Your task to perform on an android device: check android version Image 0: 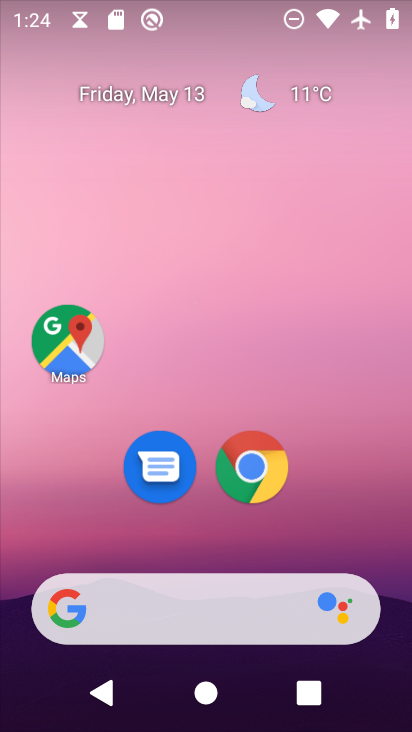
Step 0: drag from (355, 488) to (274, 90)
Your task to perform on an android device: check android version Image 1: 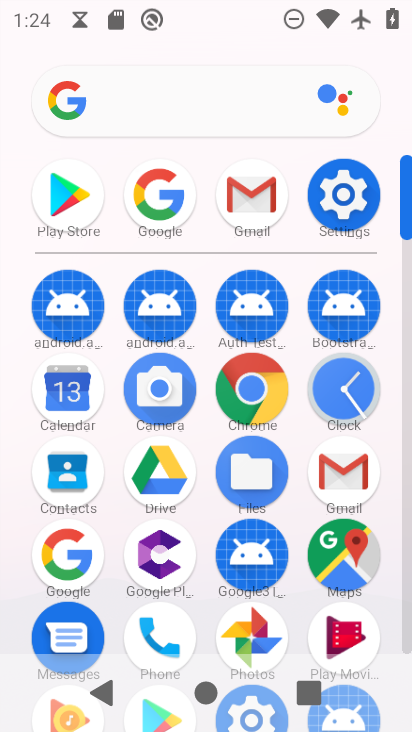
Step 1: click (341, 197)
Your task to perform on an android device: check android version Image 2: 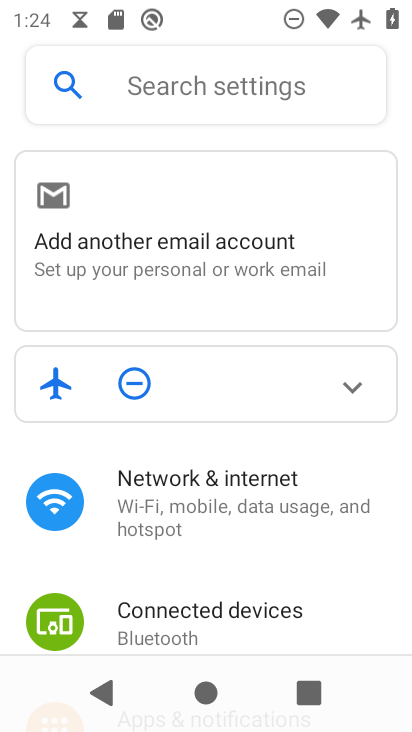
Step 2: drag from (288, 581) to (245, 27)
Your task to perform on an android device: check android version Image 3: 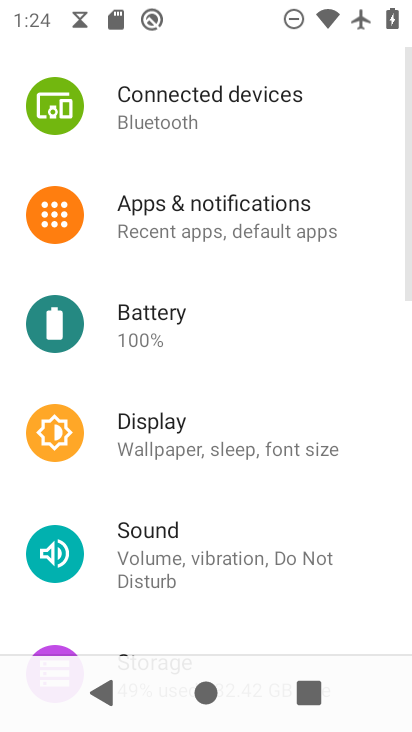
Step 3: drag from (263, 607) to (223, 138)
Your task to perform on an android device: check android version Image 4: 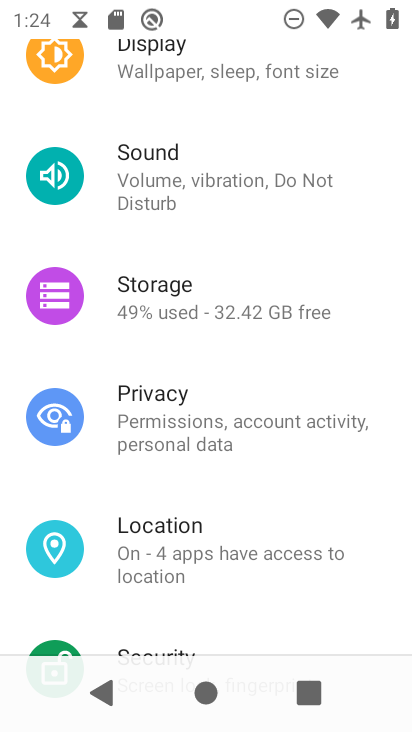
Step 4: drag from (225, 600) to (248, 172)
Your task to perform on an android device: check android version Image 5: 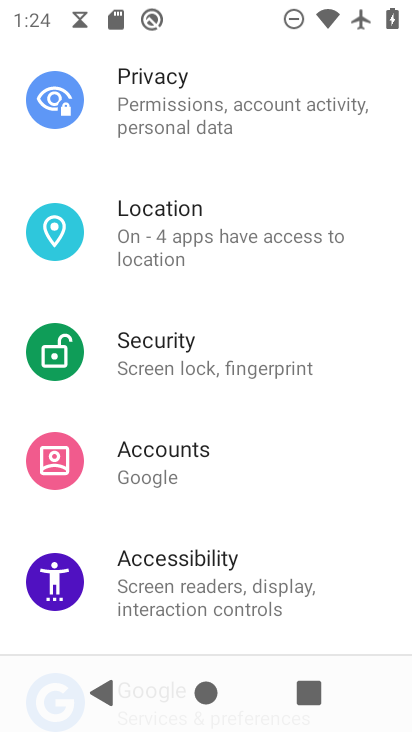
Step 5: drag from (237, 588) to (238, 161)
Your task to perform on an android device: check android version Image 6: 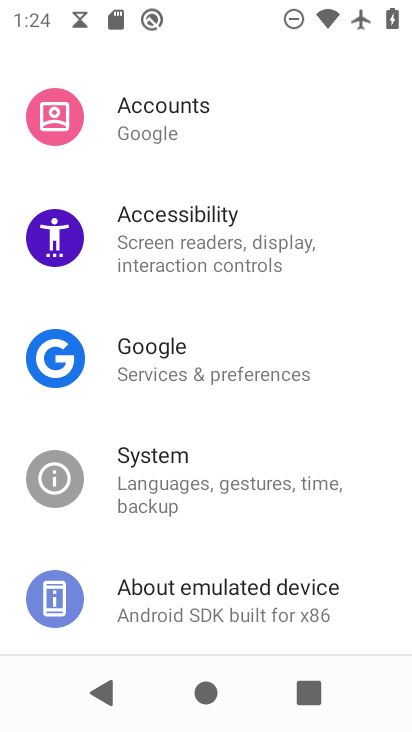
Step 6: drag from (247, 432) to (217, 201)
Your task to perform on an android device: check android version Image 7: 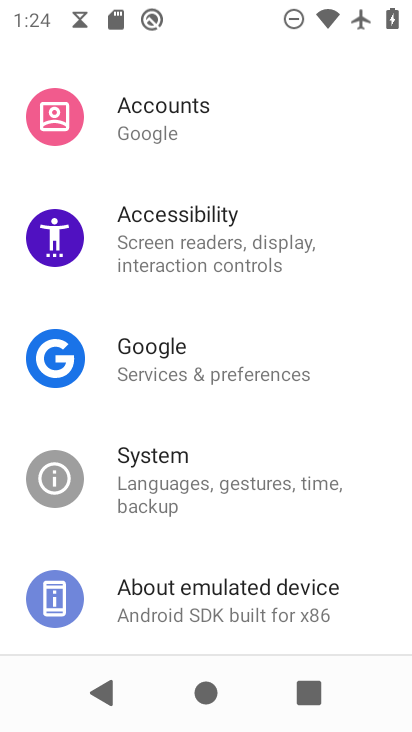
Step 7: click (224, 590)
Your task to perform on an android device: check android version Image 8: 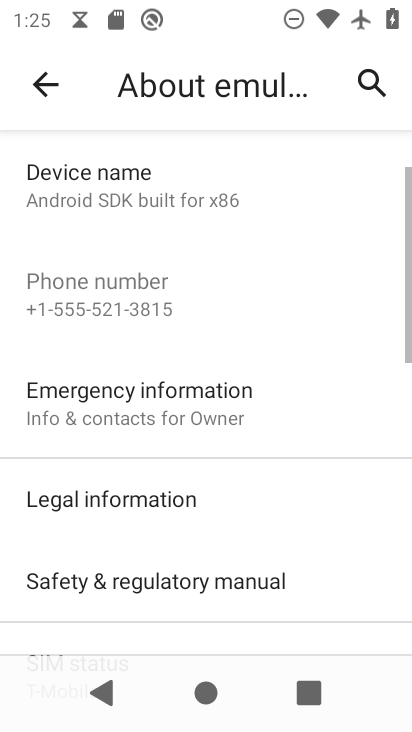
Step 8: drag from (214, 405) to (200, 180)
Your task to perform on an android device: check android version Image 9: 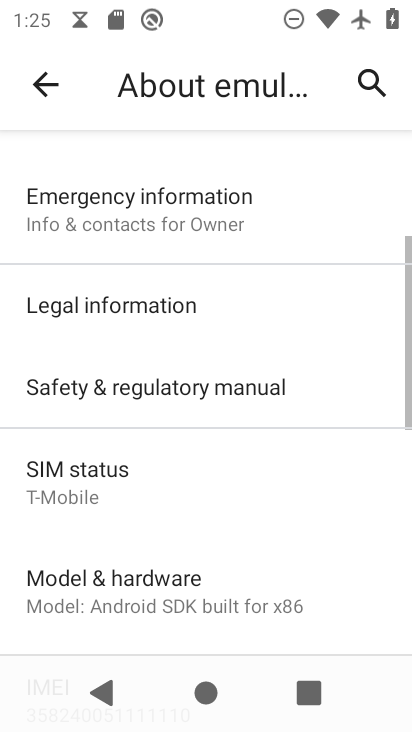
Step 9: drag from (190, 567) to (180, 259)
Your task to perform on an android device: check android version Image 10: 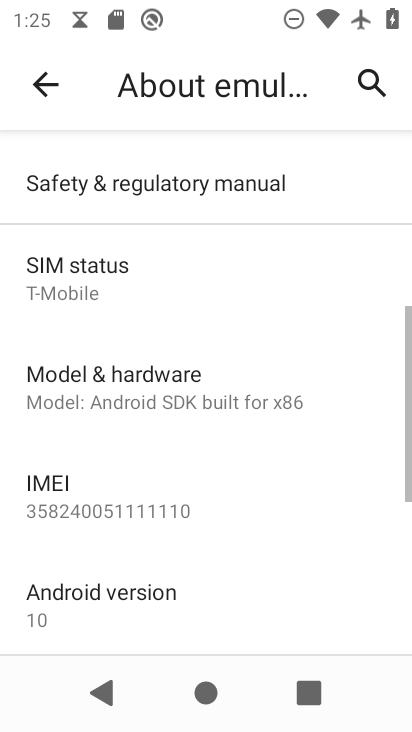
Step 10: click (148, 596)
Your task to perform on an android device: check android version Image 11: 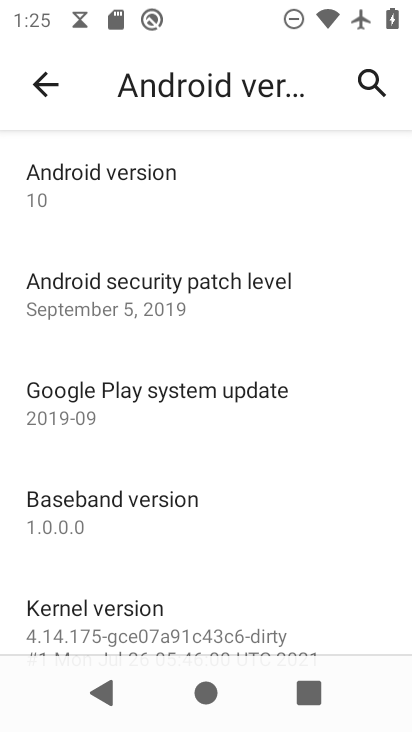
Step 11: task complete